Your task to perform on an android device: turn pop-ups on in chrome Image 0: 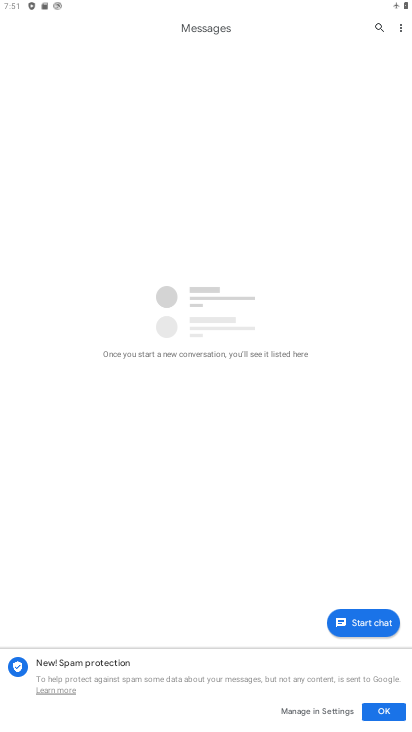
Step 0: press home button
Your task to perform on an android device: turn pop-ups on in chrome Image 1: 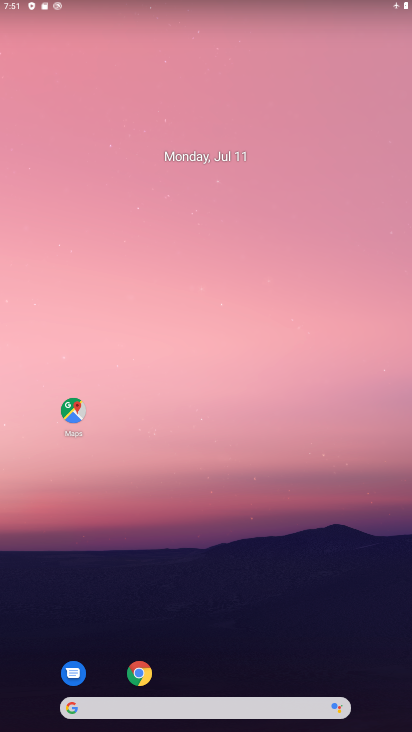
Step 1: click (142, 673)
Your task to perform on an android device: turn pop-ups on in chrome Image 2: 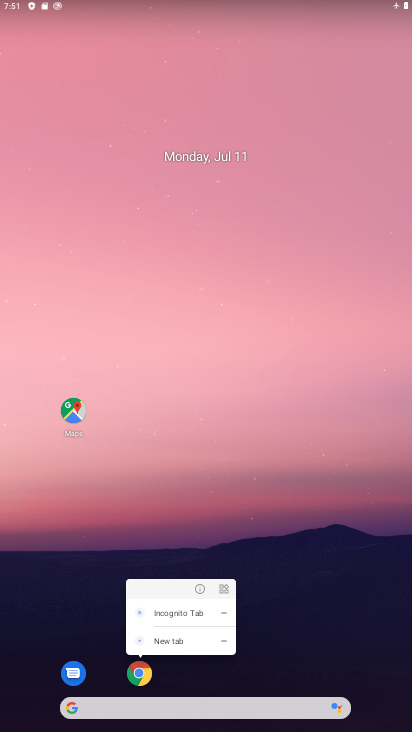
Step 2: click (142, 673)
Your task to perform on an android device: turn pop-ups on in chrome Image 3: 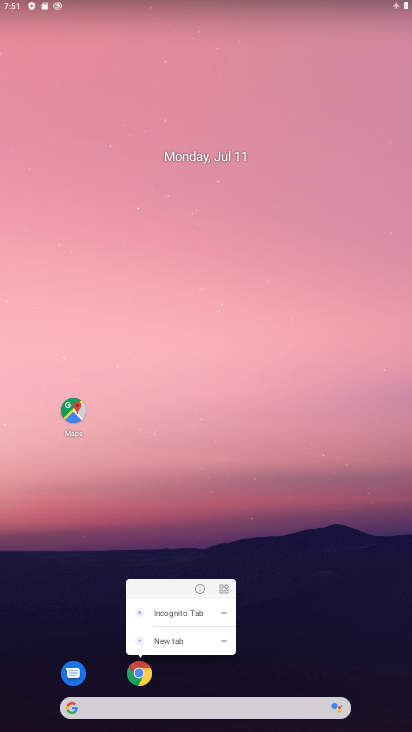
Step 3: click (137, 680)
Your task to perform on an android device: turn pop-ups on in chrome Image 4: 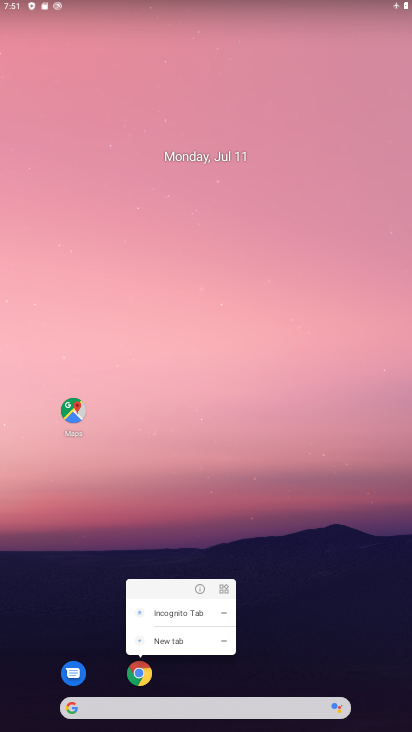
Step 4: click (137, 680)
Your task to perform on an android device: turn pop-ups on in chrome Image 5: 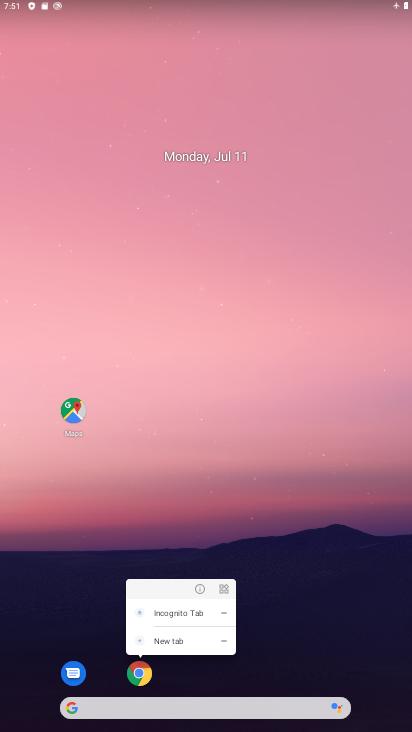
Step 5: click (136, 671)
Your task to perform on an android device: turn pop-ups on in chrome Image 6: 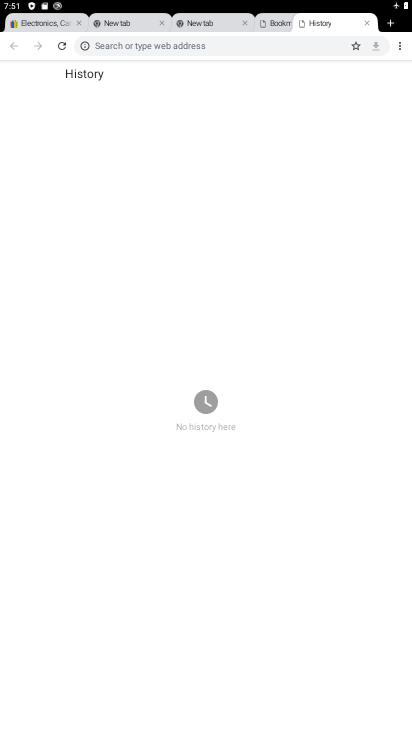
Step 6: click (366, 27)
Your task to perform on an android device: turn pop-ups on in chrome Image 7: 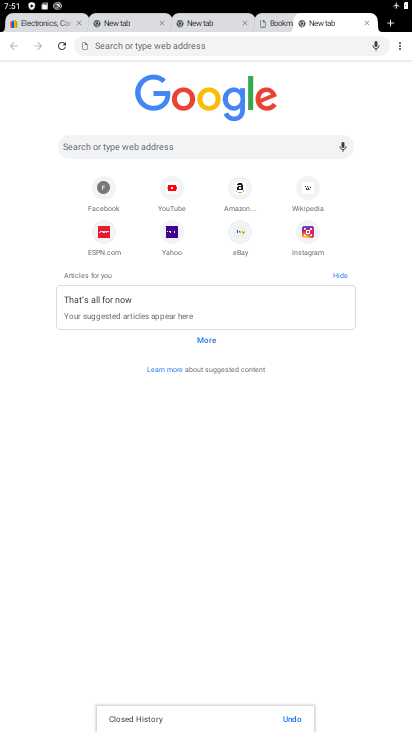
Step 7: click (366, 26)
Your task to perform on an android device: turn pop-ups on in chrome Image 8: 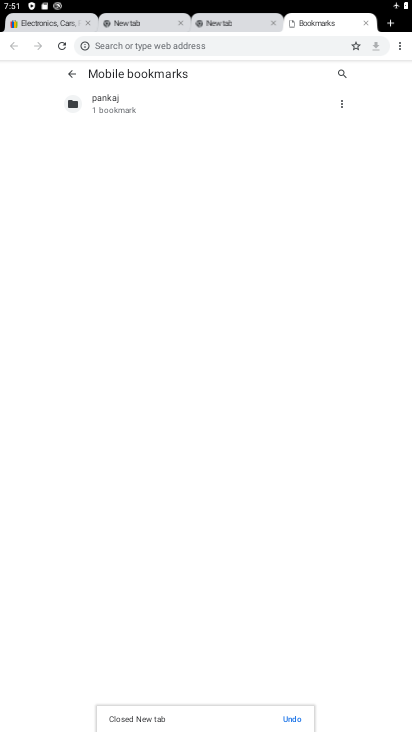
Step 8: click (364, 23)
Your task to perform on an android device: turn pop-ups on in chrome Image 9: 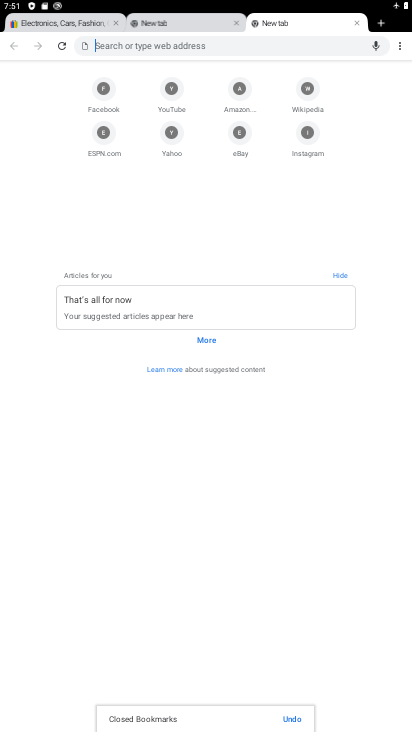
Step 9: click (364, 22)
Your task to perform on an android device: turn pop-ups on in chrome Image 10: 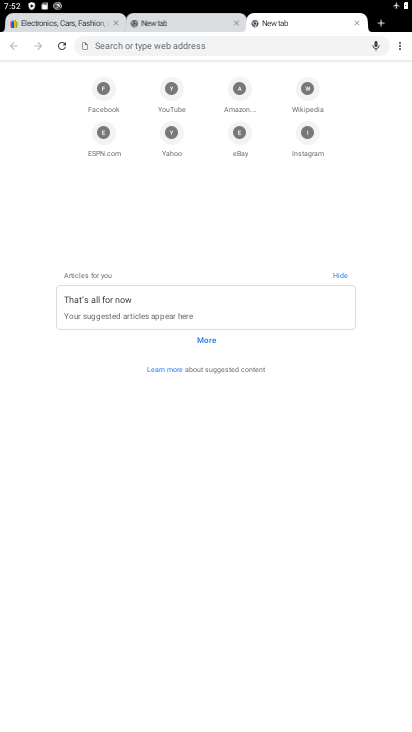
Step 10: click (355, 20)
Your task to perform on an android device: turn pop-ups on in chrome Image 11: 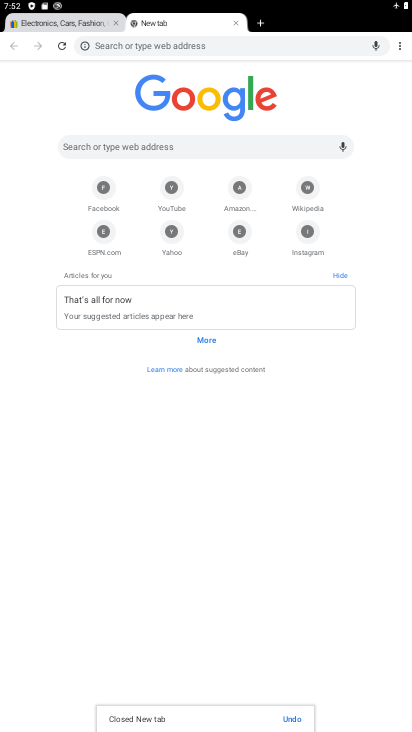
Step 11: click (239, 22)
Your task to perform on an android device: turn pop-ups on in chrome Image 12: 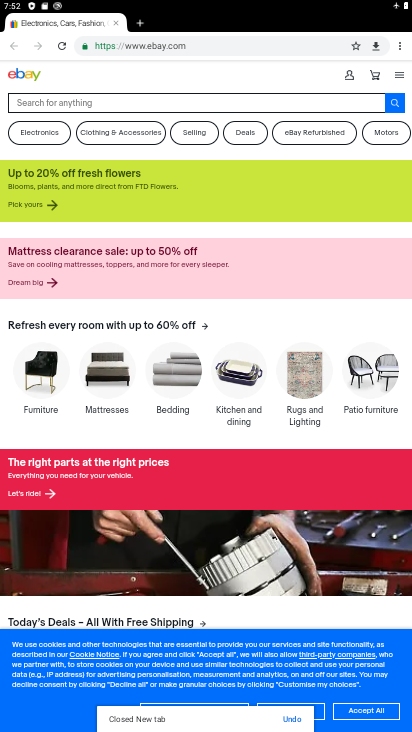
Step 12: click (398, 40)
Your task to perform on an android device: turn pop-ups on in chrome Image 13: 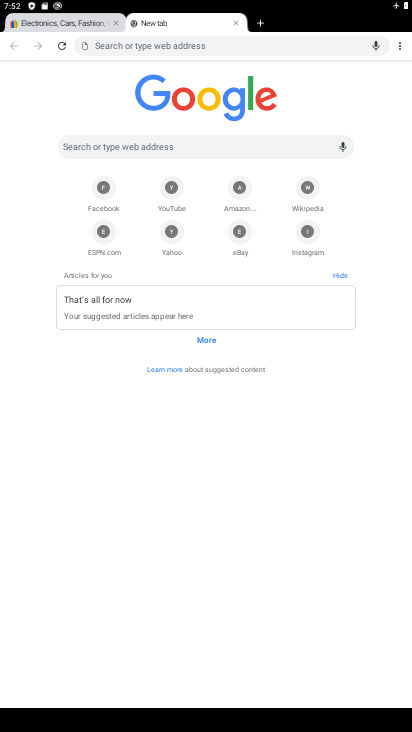
Step 13: click (398, 48)
Your task to perform on an android device: turn pop-ups on in chrome Image 14: 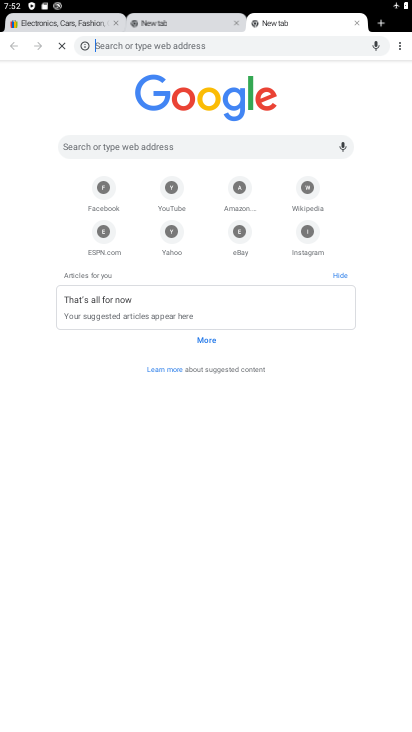
Step 14: click (398, 48)
Your task to perform on an android device: turn pop-ups on in chrome Image 15: 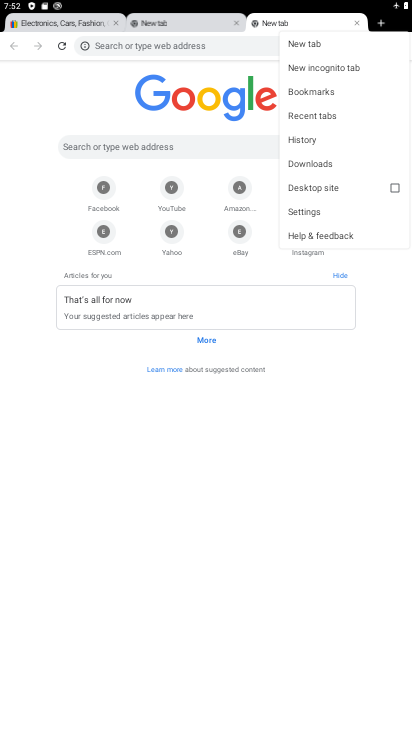
Step 15: click (298, 204)
Your task to perform on an android device: turn pop-ups on in chrome Image 16: 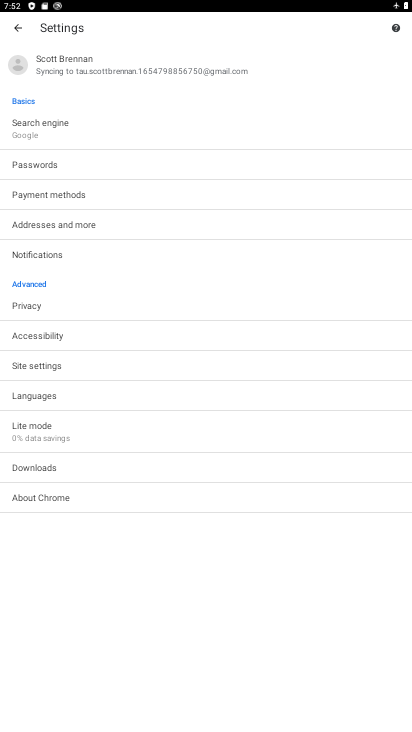
Step 16: click (57, 363)
Your task to perform on an android device: turn pop-ups on in chrome Image 17: 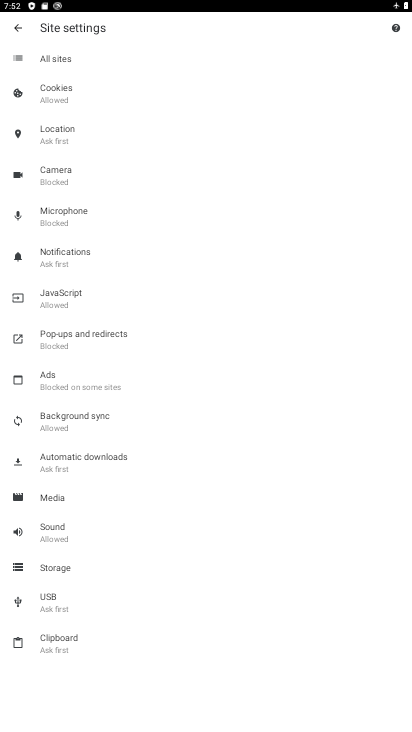
Step 17: click (50, 337)
Your task to perform on an android device: turn pop-ups on in chrome Image 18: 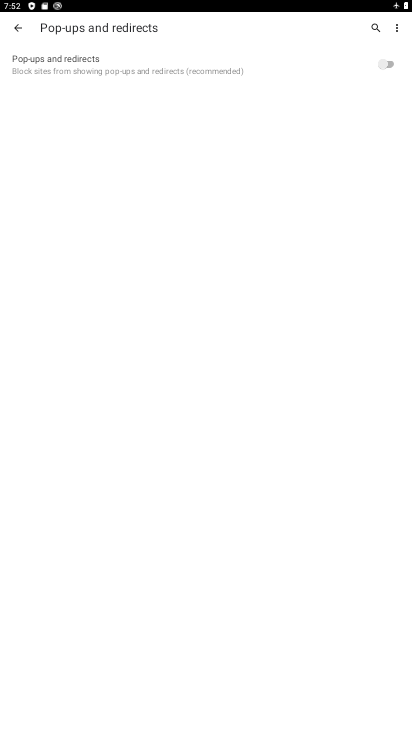
Step 18: click (392, 65)
Your task to perform on an android device: turn pop-ups on in chrome Image 19: 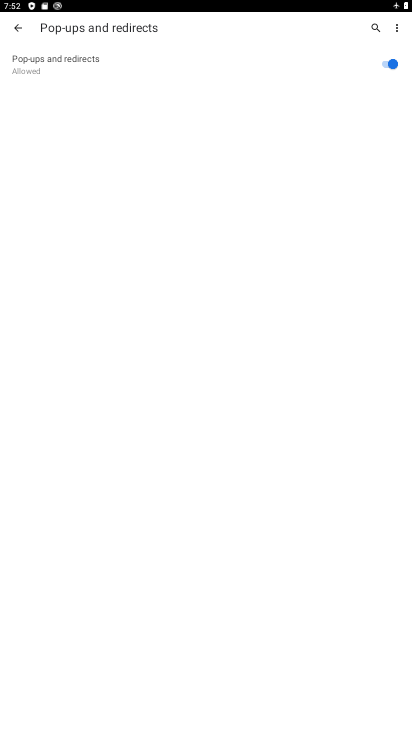
Step 19: task complete